Your task to perform on an android device: Go to internet settings Image 0: 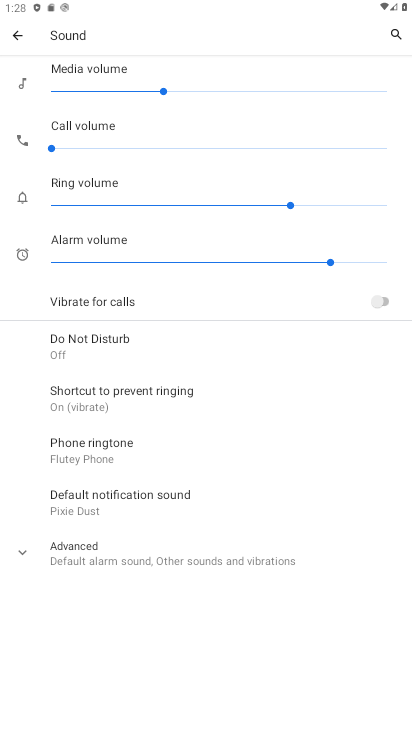
Step 0: click (6, 45)
Your task to perform on an android device: Go to internet settings Image 1: 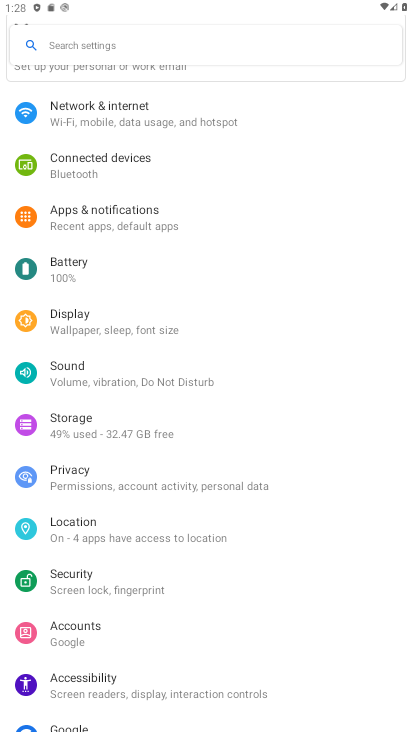
Step 1: click (113, 104)
Your task to perform on an android device: Go to internet settings Image 2: 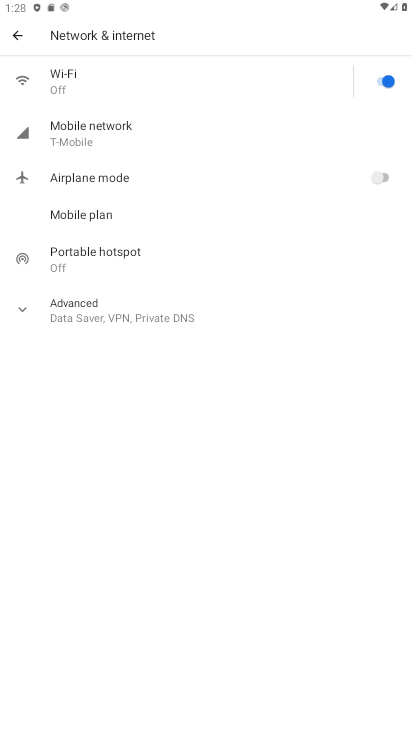
Step 2: task complete